Your task to perform on an android device: move a message to another label in the gmail app Image 0: 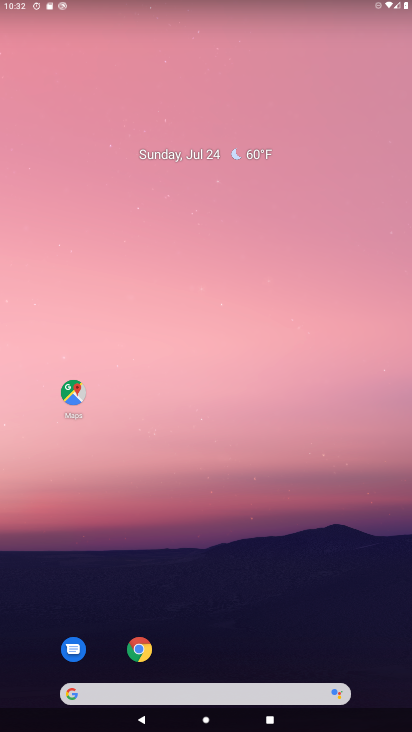
Step 0: click (269, 91)
Your task to perform on an android device: move a message to another label in the gmail app Image 1: 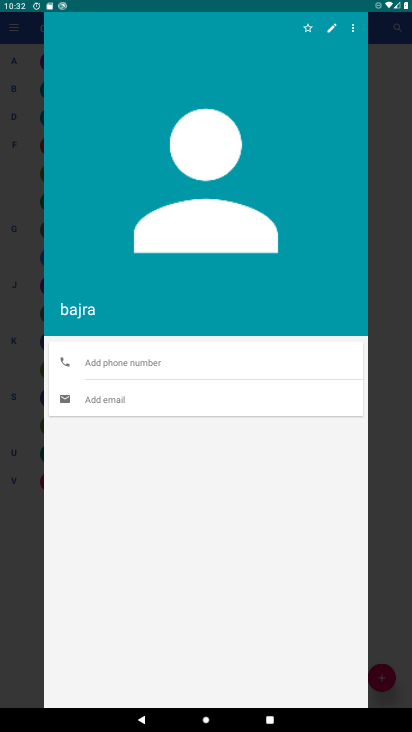
Step 1: press home button
Your task to perform on an android device: move a message to another label in the gmail app Image 2: 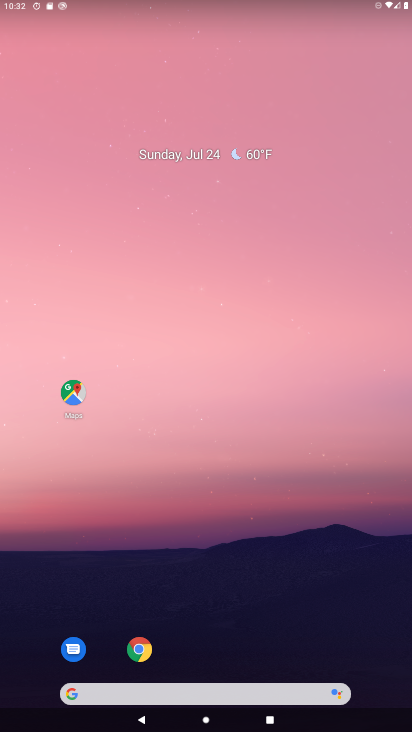
Step 2: drag from (312, 623) to (193, 91)
Your task to perform on an android device: move a message to another label in the gmail app Image 3: 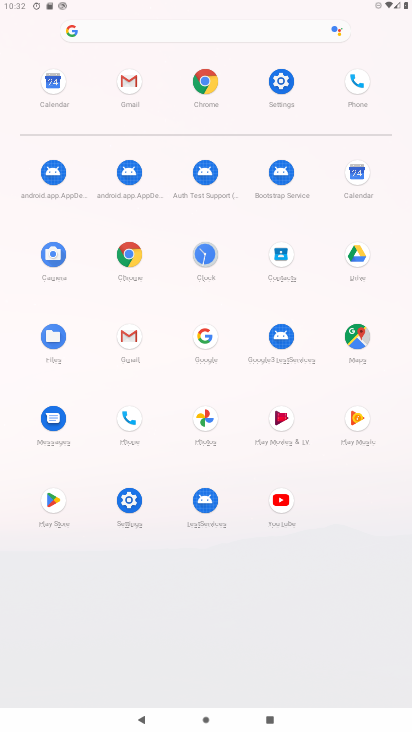
Step 3: click (125, 339)
Your task to perform on an android device: move a message to another label in the gmail app Image 4: 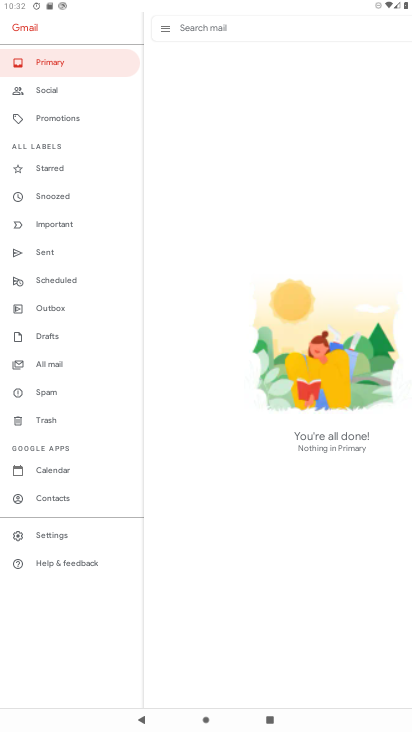
Step 4: click (64, 363)
Your task to perform on an android device: move a message to another label in the gmail app Image 5: 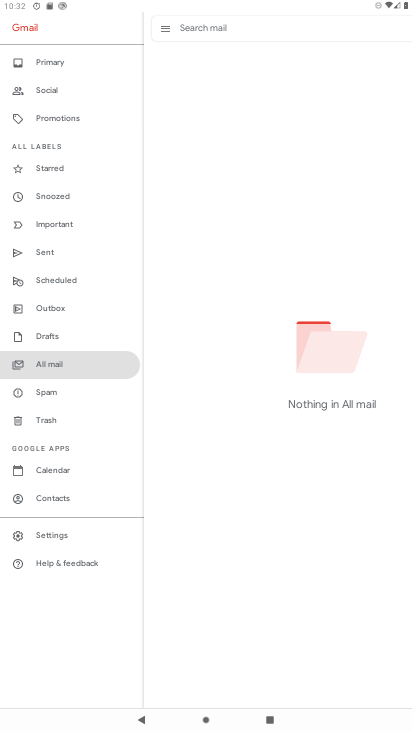
Step 5: task complete